Your task to perform on an android device: Open the Play Movies app and select the watchlist tab. Image 0: 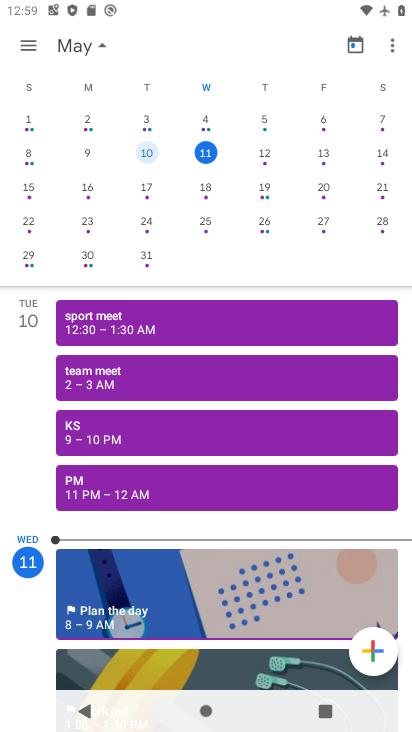
Step 0: drag from (286, 559) to (295, 254)
Your task to perform on an android device: Open the Play Movies app and select the watchlist tab. Image 1: 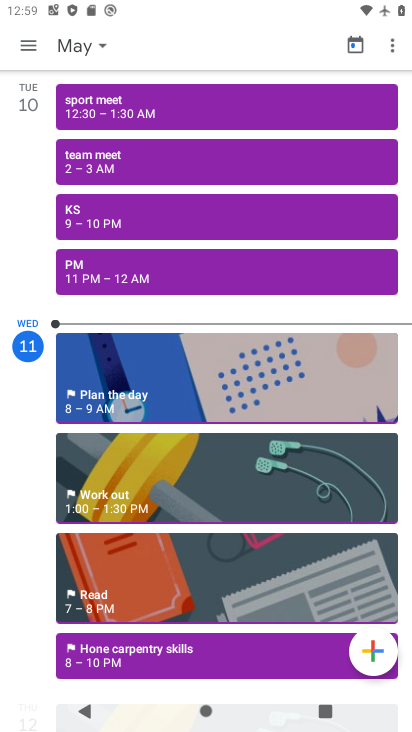
Step 1: press home button
Your task to perform on an android device: Open the Play Movies app and select the watchlist tab. Image 2: 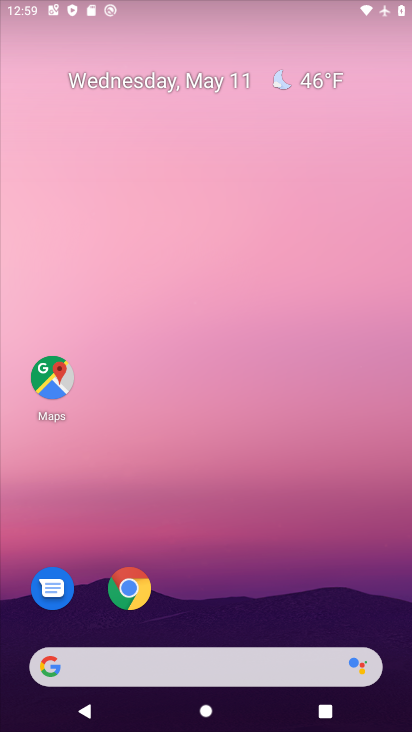
Step 2: drag from (307, 521) to (349, 176)
Your task to perform on an android device: Open the Play Movies app and select the watchlist tab. Image 3: 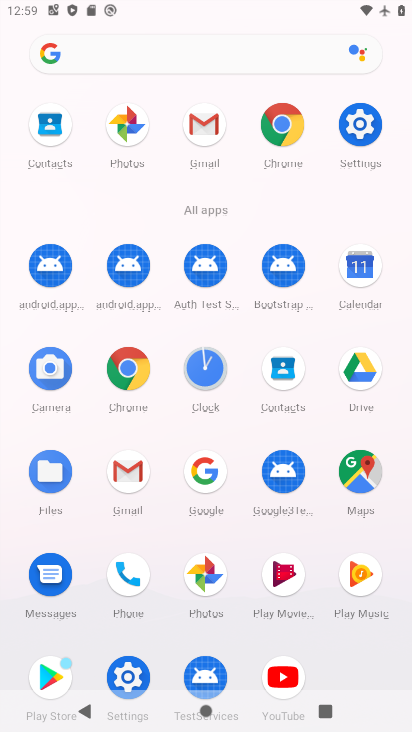
Step 3: click (277, 569)
Your task to perform on an android device: Open the Play Movies app and select the watchlist tab. Image 4: 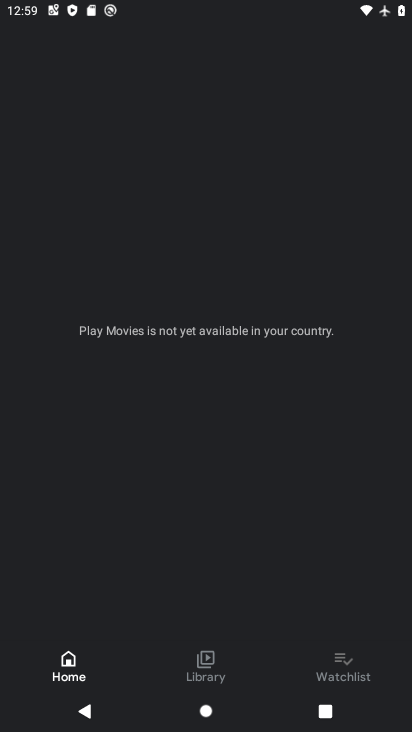
Step 4: click (337, 672)
Your task to perform on an android device: Open the Play Movies app and select the watchlist tab. Image 5: 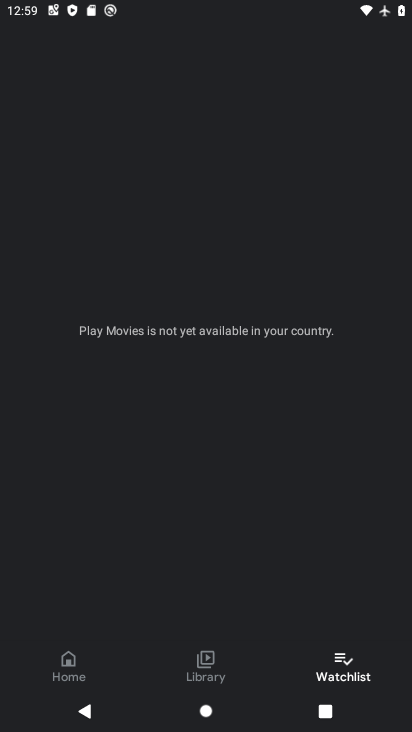
Step 5: task complete